Your task to perform on an android device: Do I have any events today? Image 0: 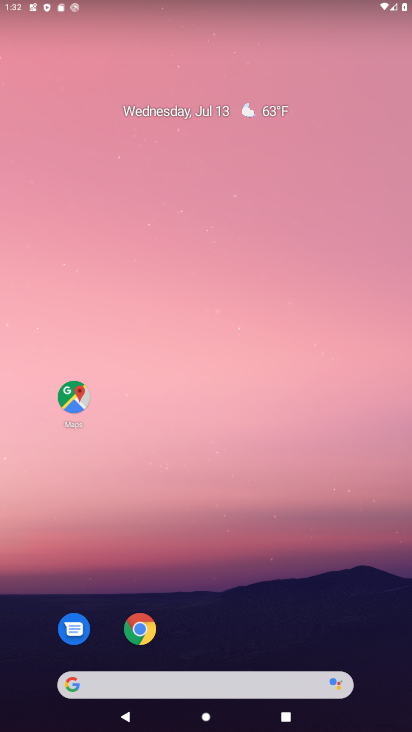
Step 0: click (157, 226)
Your task to perform on an android device: Do I have any events today? Image 1: 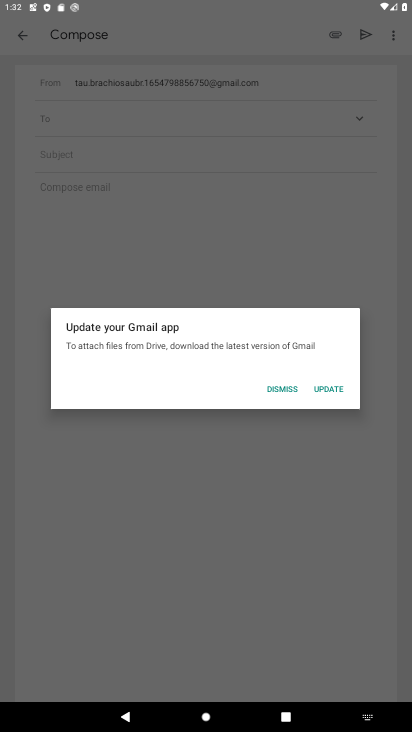
Step 1: press home button
Your task to perform on an android device: Do I have any events today? Image 2: 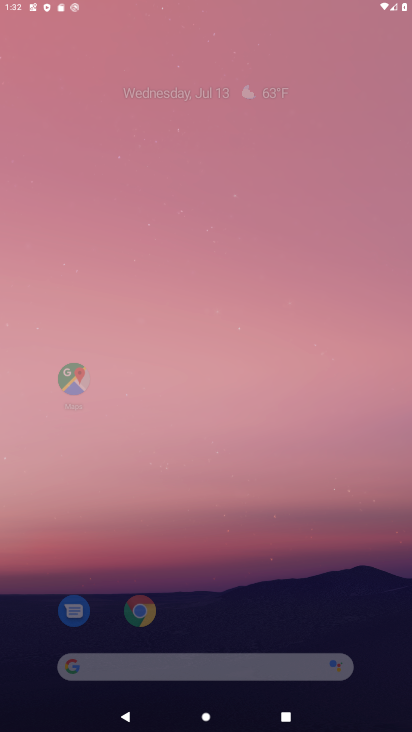
Step 2: drag from (273, 403) to (311, 94)
Your task to perform on an android device: Do I have any events today? Image 3: 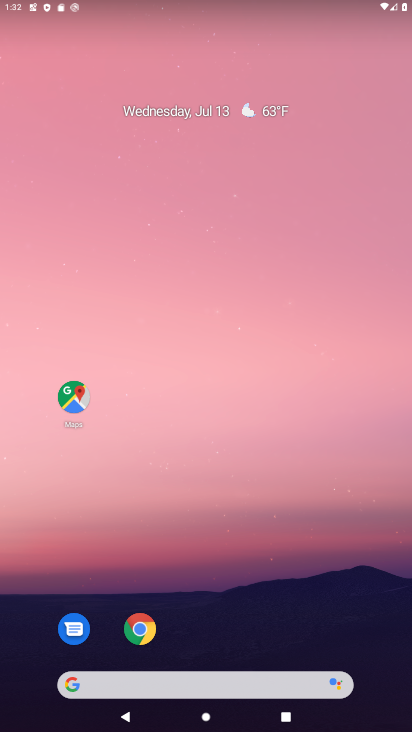
Step 3: drag from (194, 645) to (280, 145)
Your task to perform on an android device: Do I have any events today? Image 4: 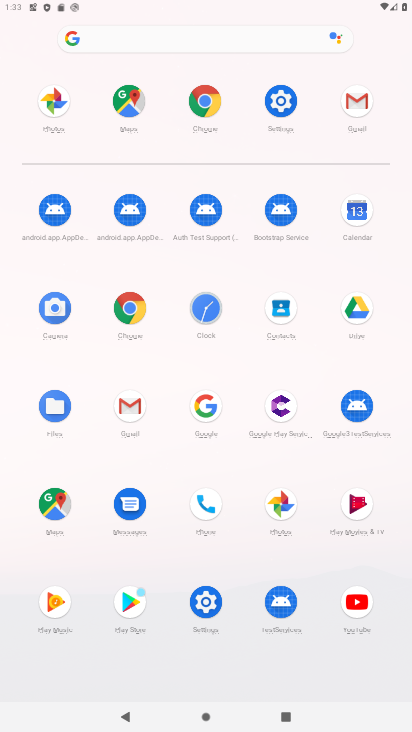
Step 4: click (351, 195)
Your task to perform on an android device: Do I have any events today? Image 5: 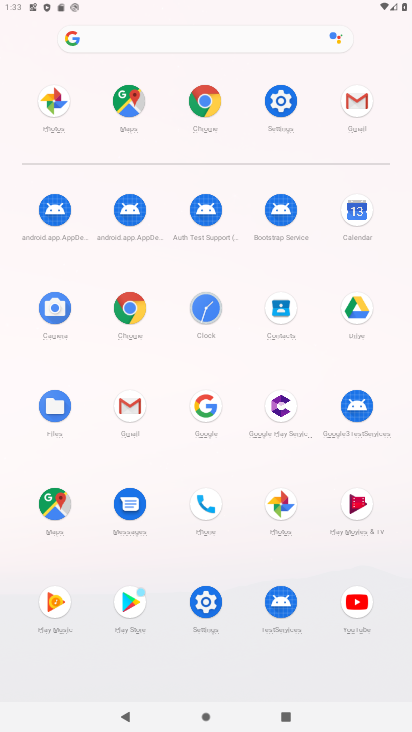
Step 5: click (351, 195)
Your task to perform on an android device: Do I have any events today? Image 6: 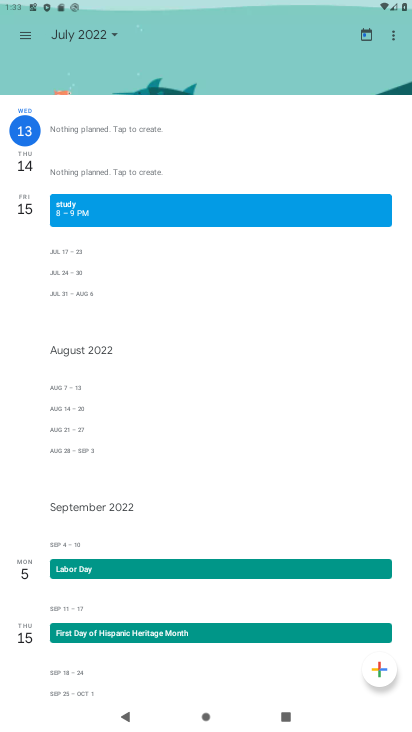
Step 6: drag from (175, 579) to (213, 372)
Your task to perform on an android device: Do I have any events today? Image 7: 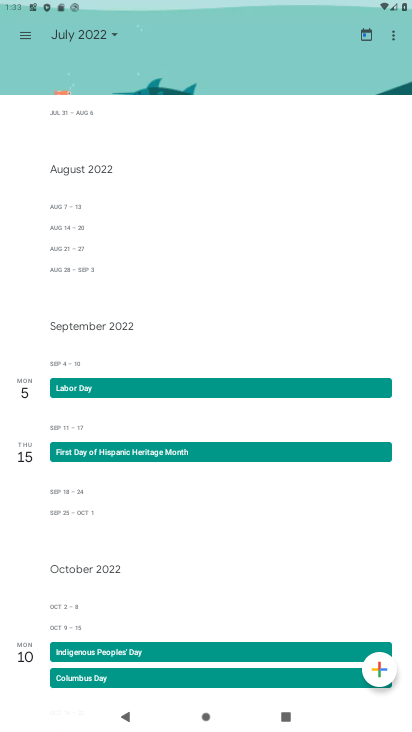
Step 7: drag from (195, 272) to (231, 504)
Your task to perform on an android device: Do I have any events today? Image 8: 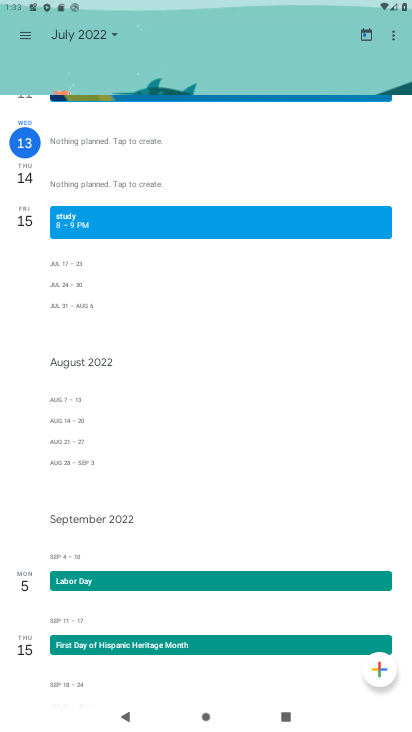
Step 8: click (87, 21)
Your task to perform on an android device: Do I have any events today? Image 9: 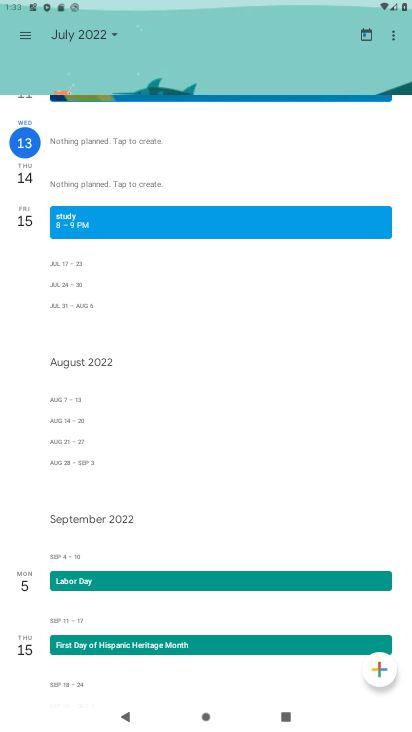
Step 9: click (361, 44)
Your task to perform on an android device: Do I have any events today? Image 10: 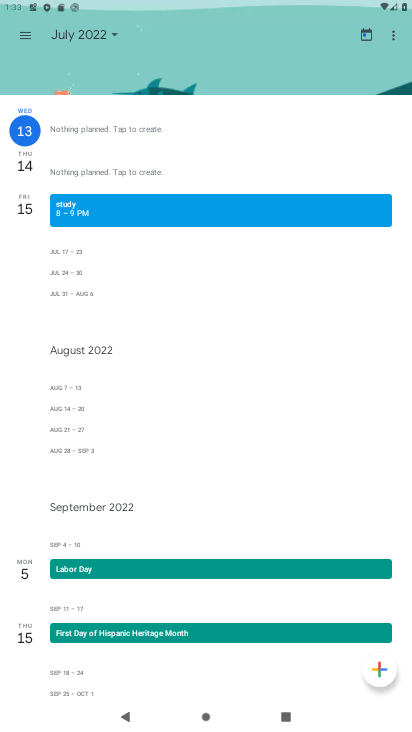
Step 10: click (370, 38)
Your task to perform on an android device: Do I have any events today? Image 11: 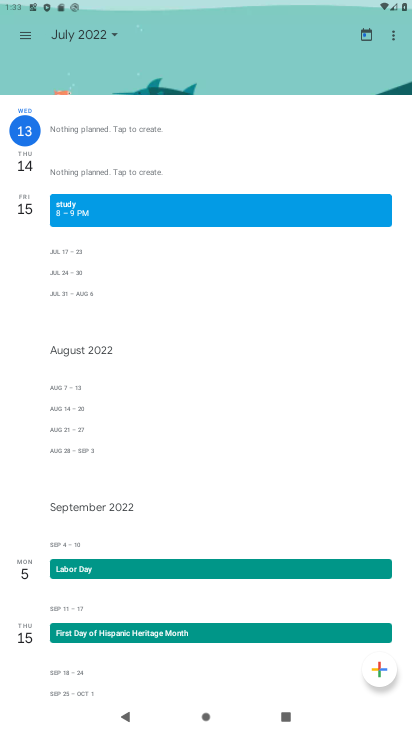
Step 11: task complete